Your task to perform on an android device: turn on data saver in the chrome app Image 0: 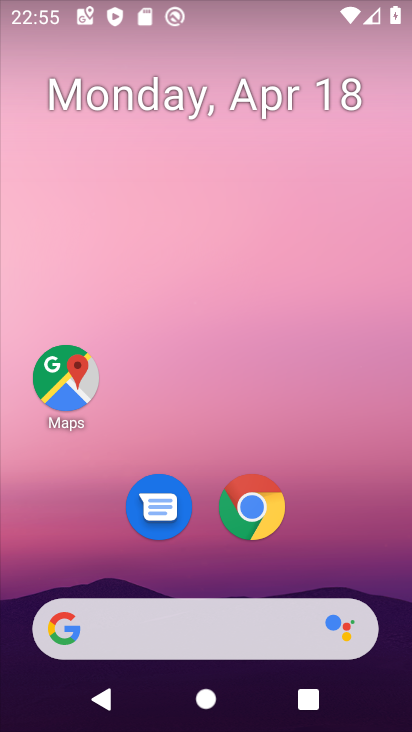
Step 0: click (272, 508)
Your task to perform on an android device: turn on data saver in the chrome app Image 1: 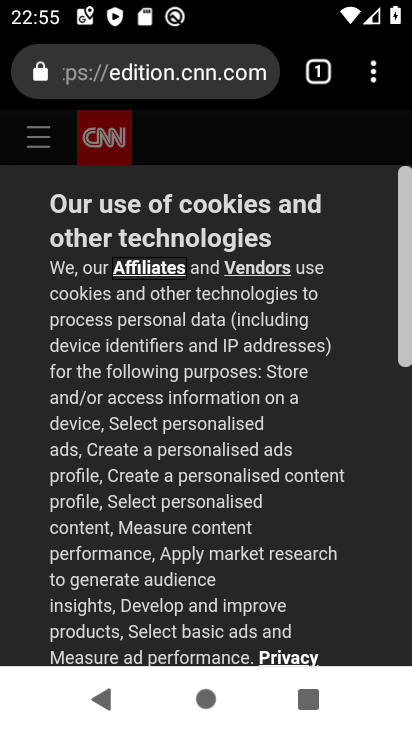
Step 1: click (372, 78)
Your task to perform on an android device: turn on data saver in the chrome app Image 2: 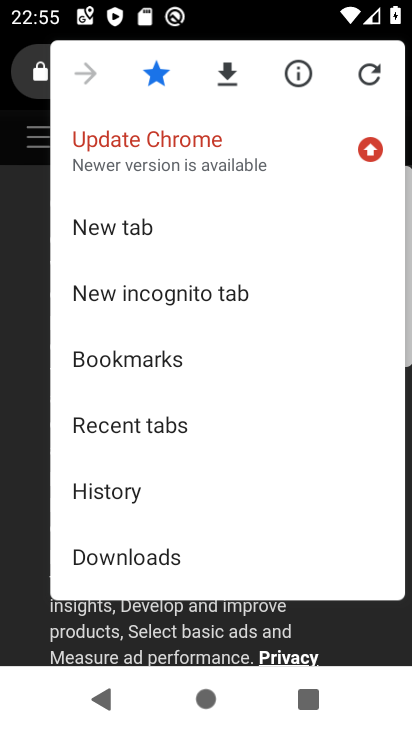
Step 2: drag from (221, 477) to (248, 189)
Your task to perform on an android device: turn on data saver in the chrome app Image 3: 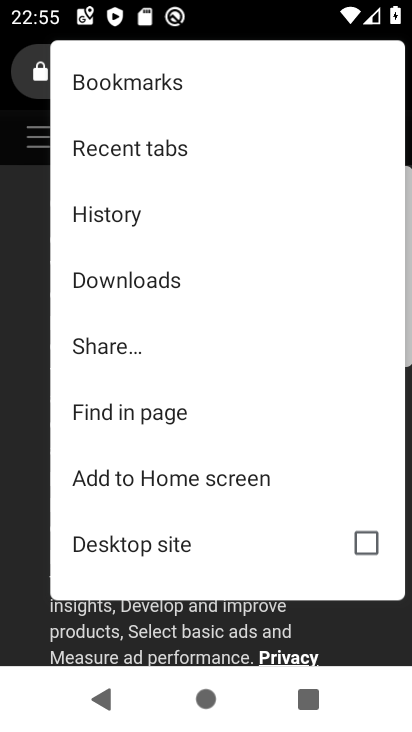
Step 3: drag from (209, 513) to (246, 131)
Your task to perform on an android device: turn on data saver in the chrome app Image 4: 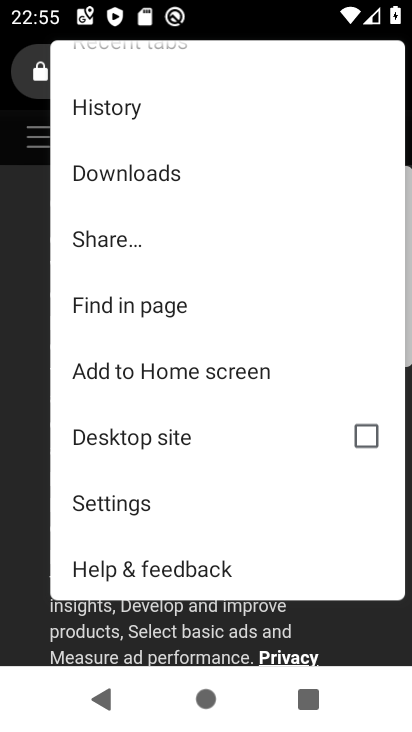
Step 4: click (153, 502)
Your task to perform on an android device: turn on data saver in the chrome app Image 5: 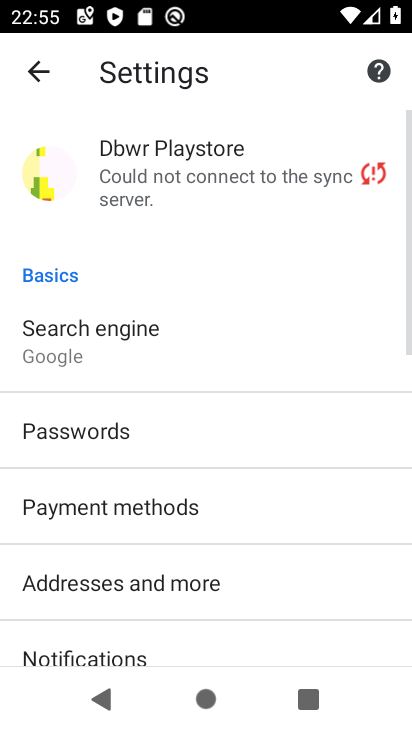
Step 5: drag from (258, 582) to (276, 207)
Your task to perform on an android device: turn on data saver in the chrome app Image 6: 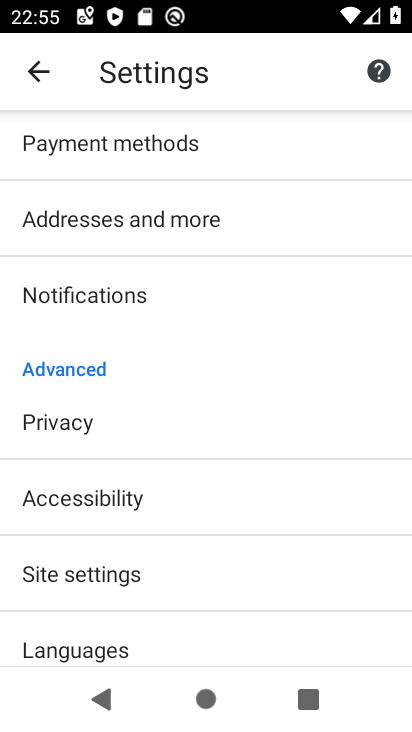
Step 6: drag from (218, 581) to (241, 209)
Your task to perform on an android device: turn on data saver in the chrome app Image 7: 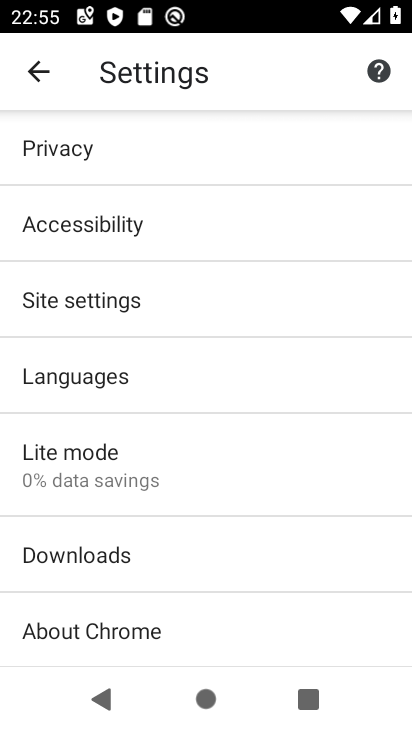
Step 7: click (186, 470)
Your task to perform on an android device: turn on data saver in the chrome app Image 8: 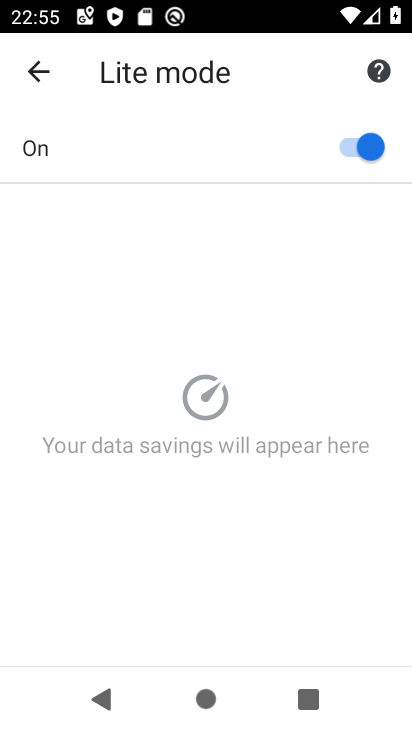
Step 8: task complete